Your task to perform on an android device: open app "Venmo" (install if not already installed) Image 0: 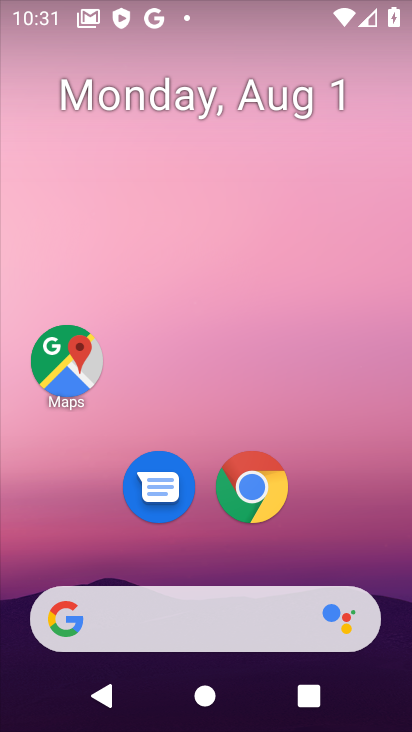
Step 0: drag from (181, 550) to (196, 64)
Your task to perform on an android device: open app "Venmo" (install if not already installed) Image 1: 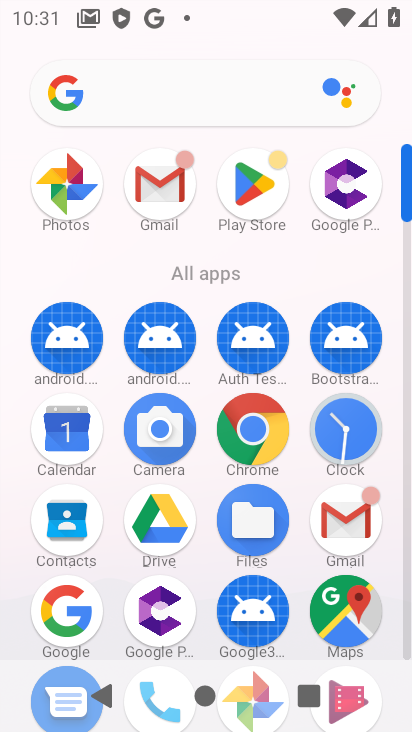
Step 1: drag from (214, 571) to (214, 24)
Your task to perform on an android device: open app "Venmo" (install if not already installed) Image 2: 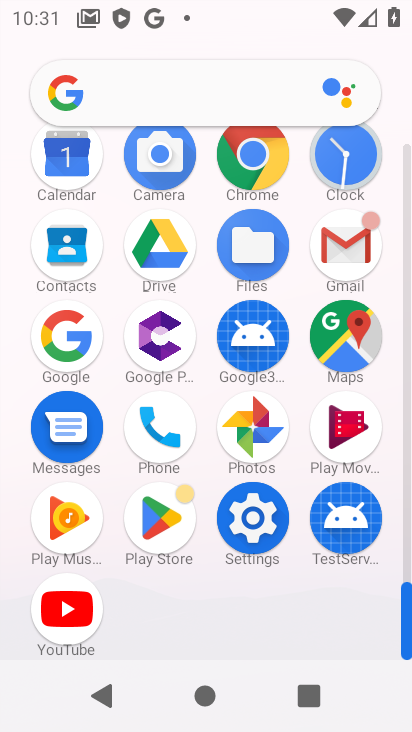
Step 2: click (171, 547)
Your task to perform on an android device: open app "Venmo" (install if not already installed) Image 3: 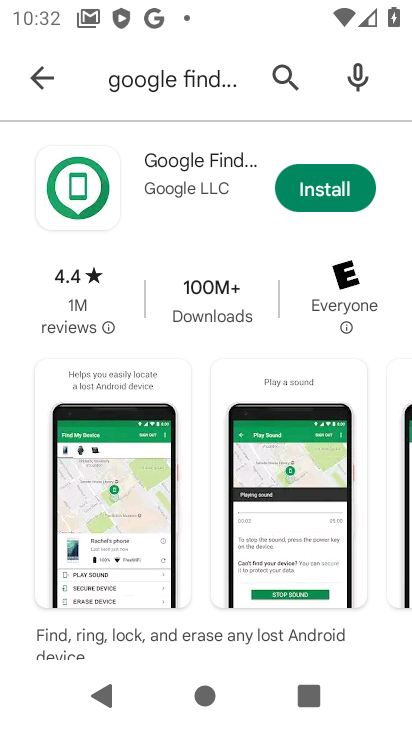
Step 3: click (47, 85)
Your task to perform on an android device: open app "Venmo" (install if not already installed) Image 4: 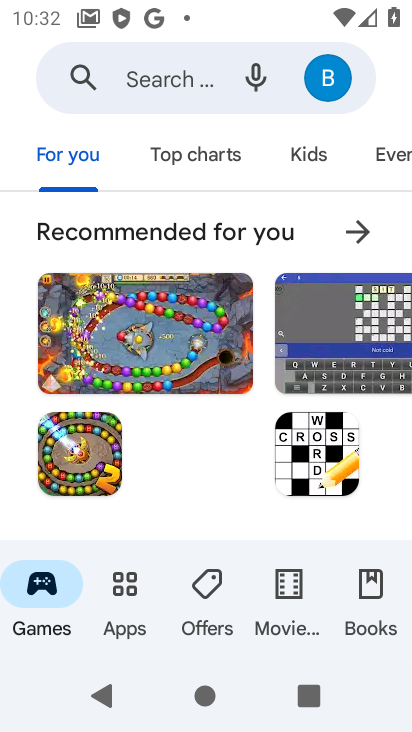
Step 4: click (151, 85)
Your task to perform on an android device: open app "Venmo" (install if not already installed) Image 5: 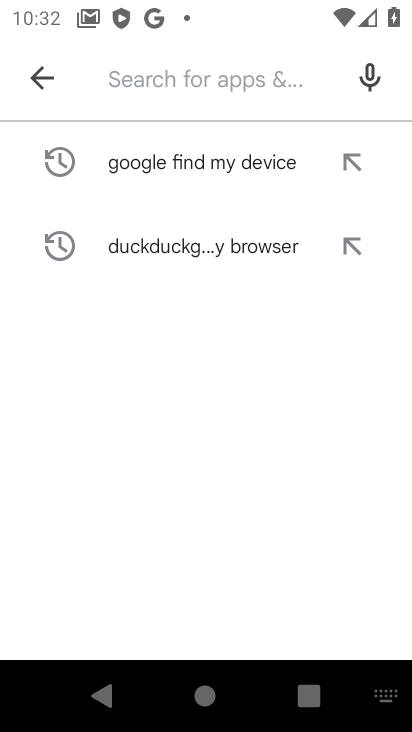
Step 5: type "Venmo"
Your task to perform on an android device: open app "Venmo" (install if not already installed) Image 6: 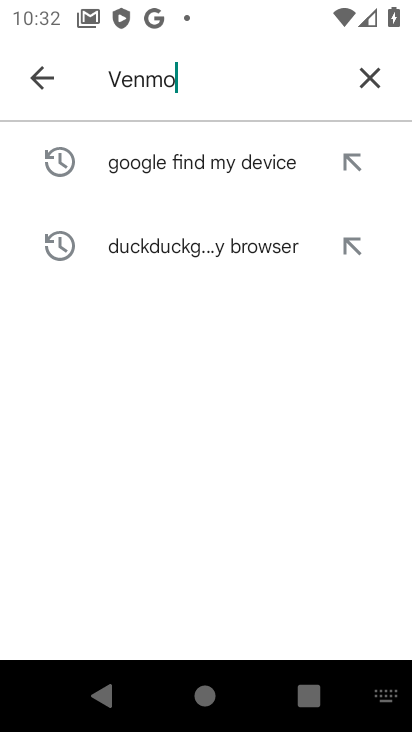
Step 6: type ""
Your task to perform on an android device: open app "Venmo" (install if not already installed) Image 7: 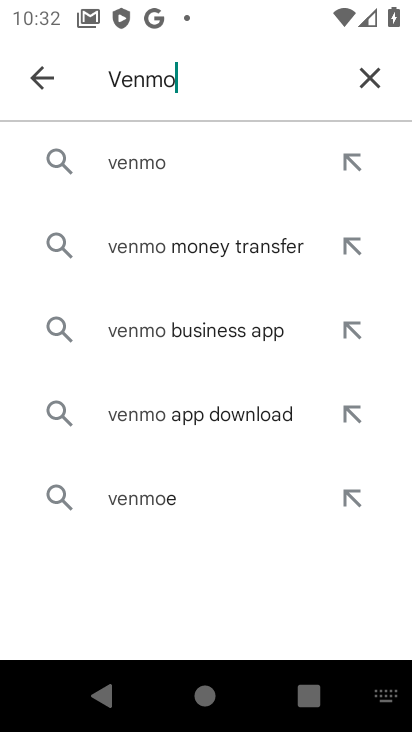
Step 7: click (173, 162)
Your task to perform on an android device: open app "Venmo" (install if not already installed) Image 8: 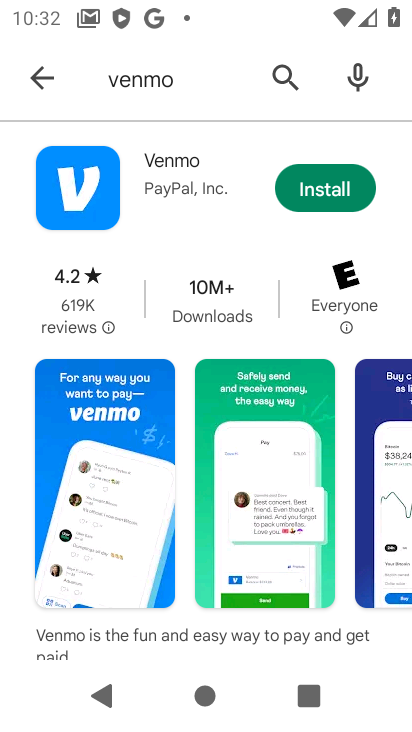
Step 8: click (297, 196)
Your task to perform on an android device: open app "Venmo" (install if not already installed) Image 9: 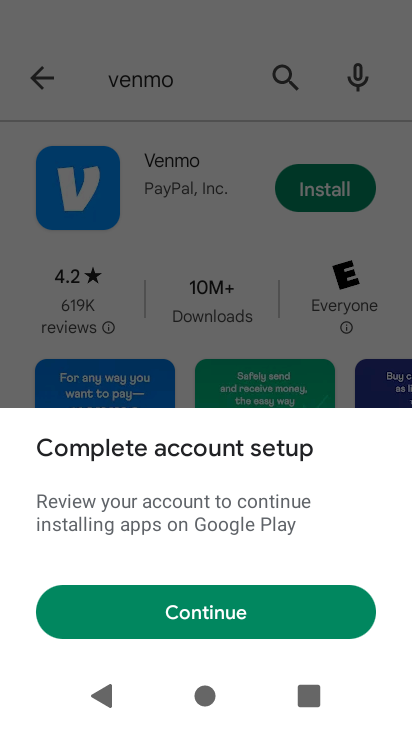
Step 9: click (242, 613)
Your task to perform on an android device: open app "Venmo" (install if not already installed) Image 10: 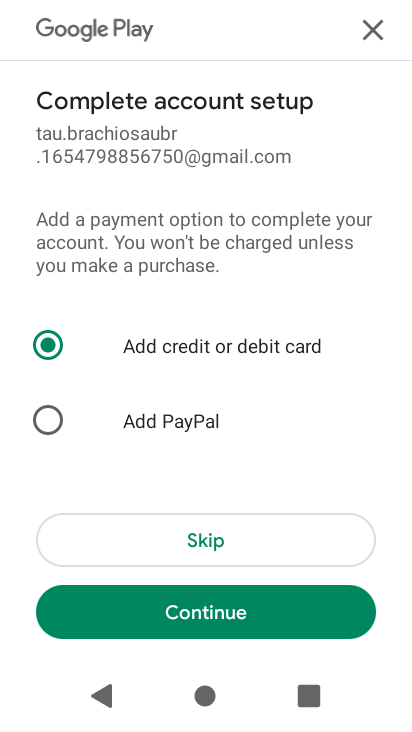
Step 10: click (173, 534)
Your task to perform on an android device: open app "Venmo" (install if not already installed) Image 11: 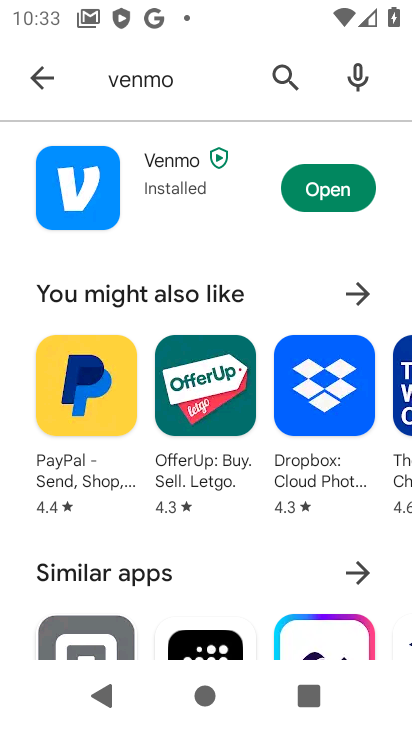
Step 11: click (325, 202)
Your task to perform on an android device: open app "Venmo" (install if not already installed) Image 12: 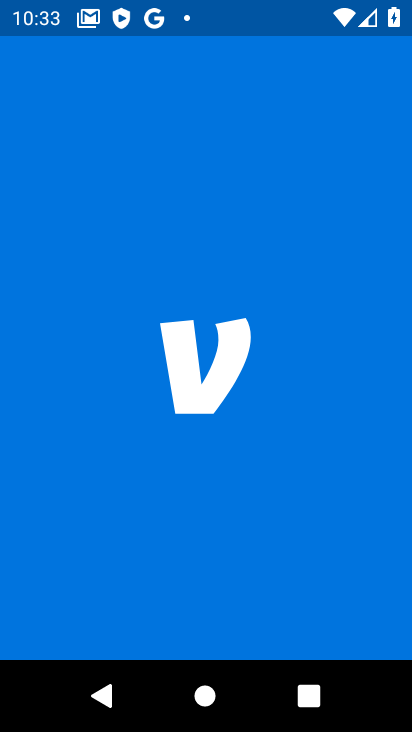
Step 12: task complete